Your task to perform on an android device: check storage Image 0: 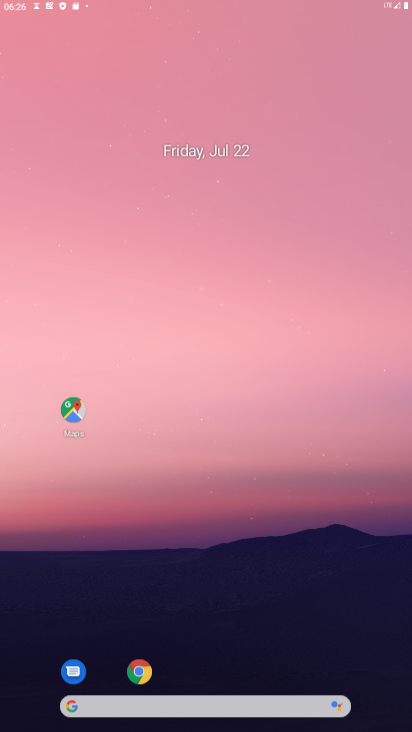
Step 0: press home button
Your task to perform on an android device: check storage Image 1: 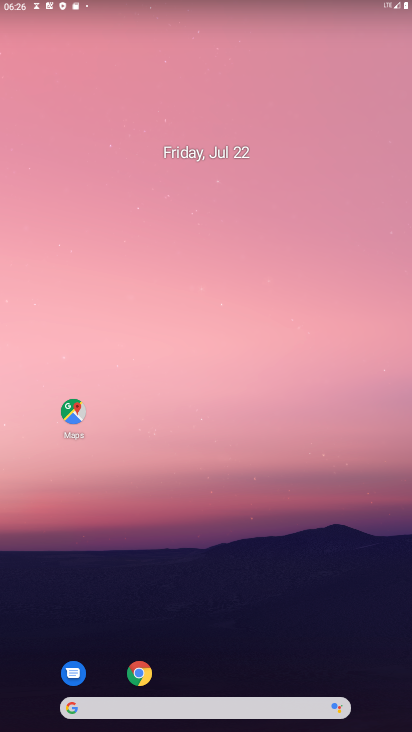
Step 1: drag from (195, 659) to (192, 101)
Your task to perform on an android device: check storage Image 2: 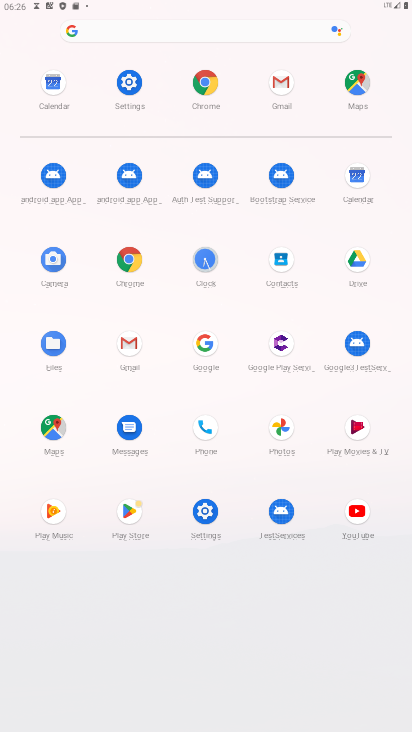
Step 2: click (125, 89)
Your task to perform on an android device: check storage Image 3: 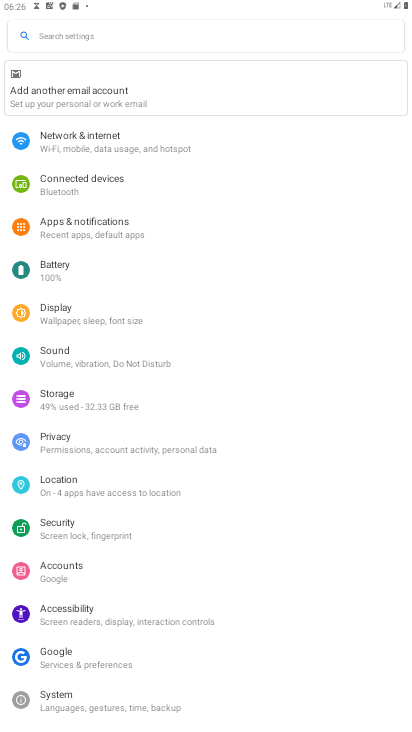
Step 3: click (57, 404)
Your task to perform on an android device: check storage Image 4: 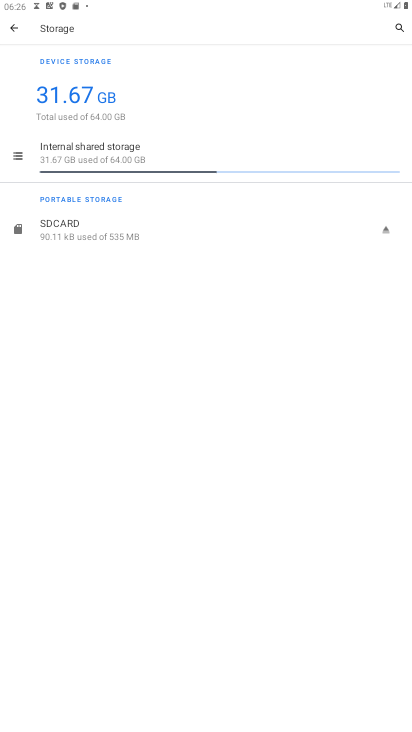
Step 4: task complete